Your task to perform on an android device: turn off location history Image 0: 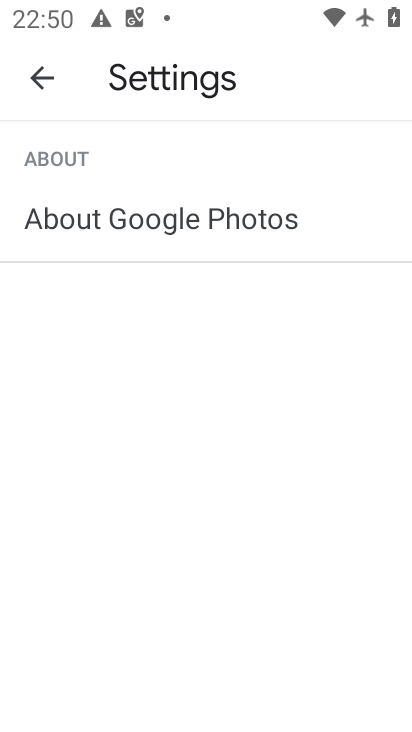
Step 0: press home button
Your task to perform on an android device: turn off location history Image 1: 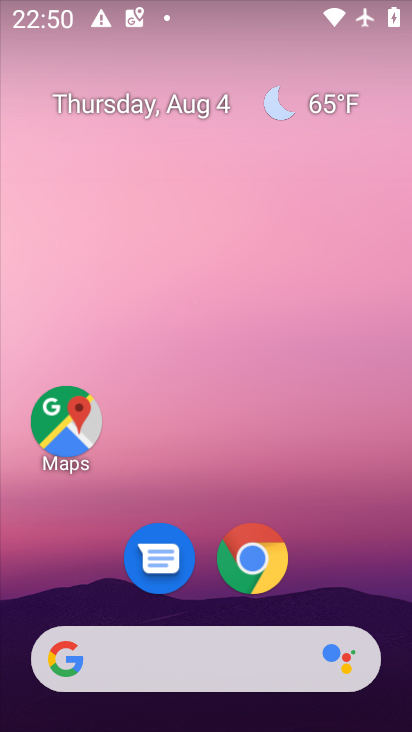
Step 1: drag from (341, 556) to (282, 123)
Your task to perform on an android device: turn off location history Image 2: 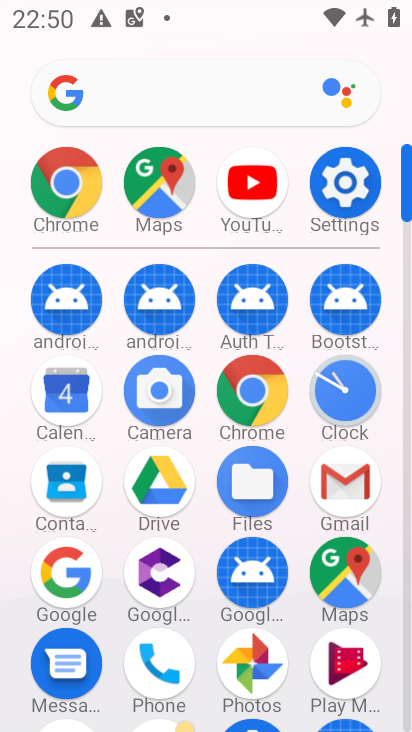
Step 2: drag from (301, 537) to (323, 238)
Your task to perform on an android device: turn off location history Image 3: 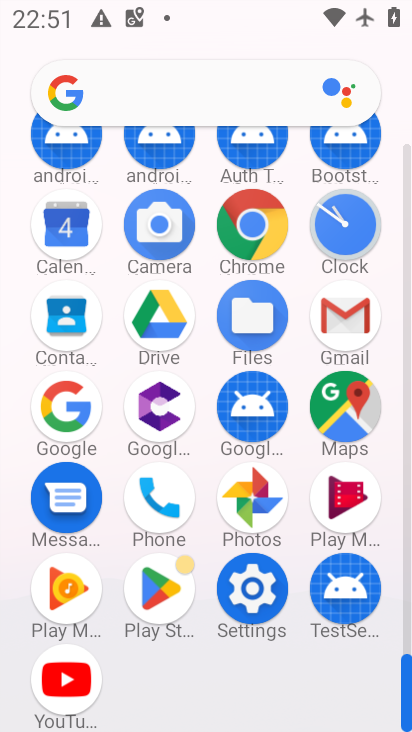
Step 3: click (253, 605)
Your task to perform on an android device: turn off location history Image 4: 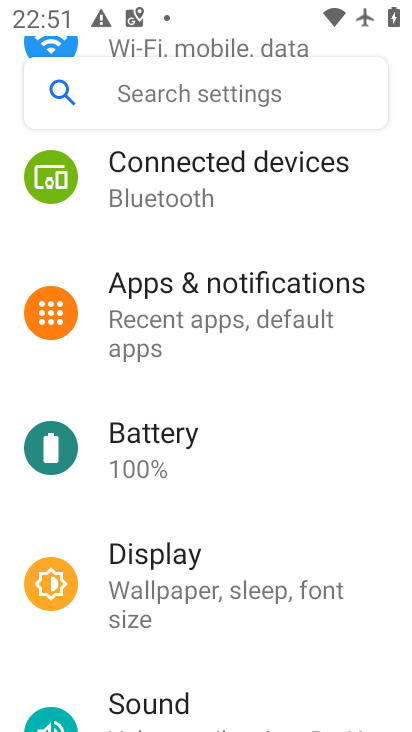
Step 4: drag from (263, 642) to (308, 226)
Your task to perform on an android device: turn off location history Image 5: 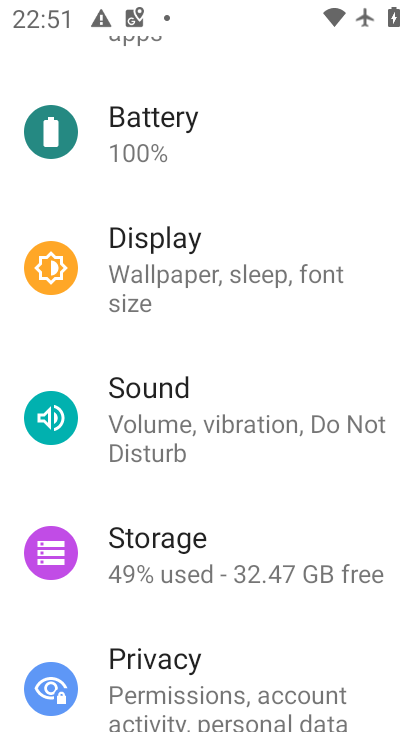
Step 5: drag from (262, 633) to (339, 301)
Your task to perform on an android device: turn off location history Image 6: 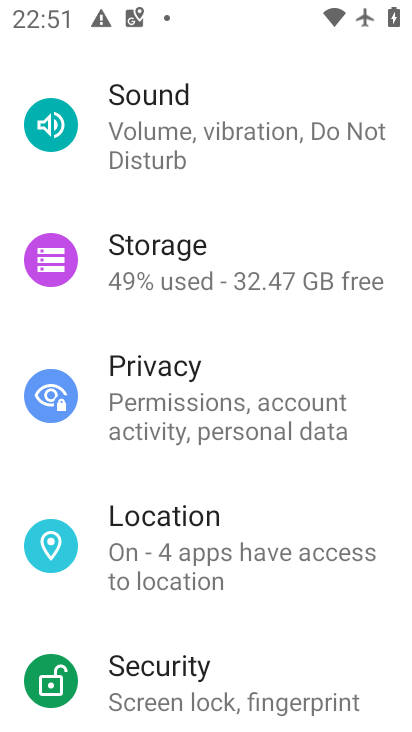
Step 6: click (208, 540)
Your task to perform on an android device: turn off location history Image 7: 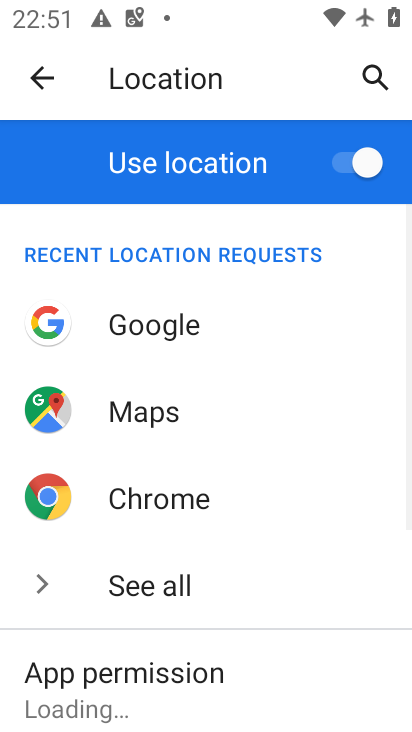
Step 7: drag from (302, 665) to (365, 325)
Your task to perform on an android device: turn off location history Image 8: 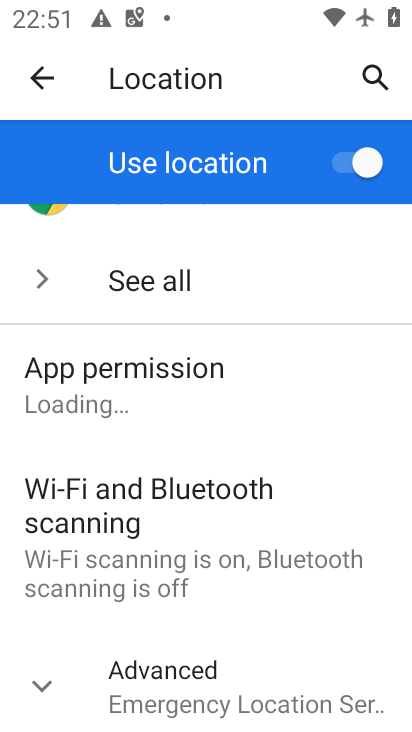
Step 8: drag from (203, 655) to (285, 393)
Your task to perform on an android device: turn off location history Image 9: 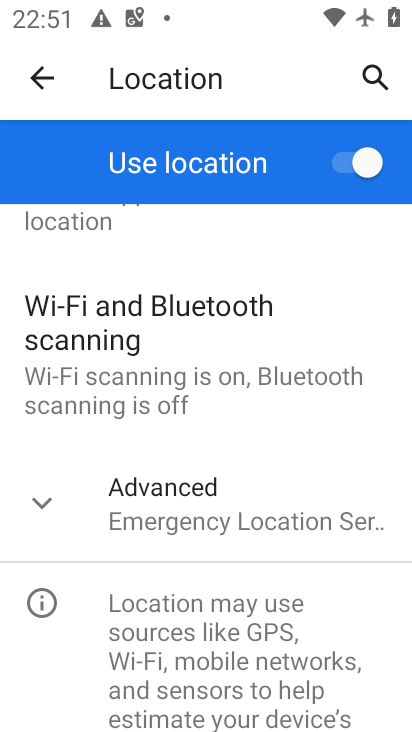
Step 9: click (242, 498)
Your task to perform on an android device: turn off location history Image 10: 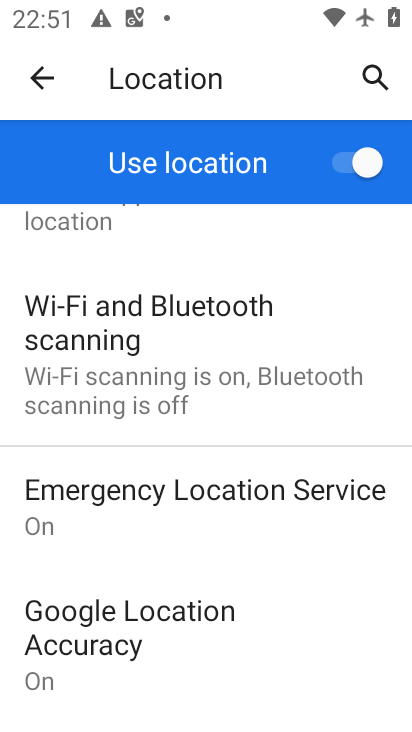
Step 10: drag from (288, 647) to (300, 348)
Your task to perform on an android device: turn off location history Image 11: 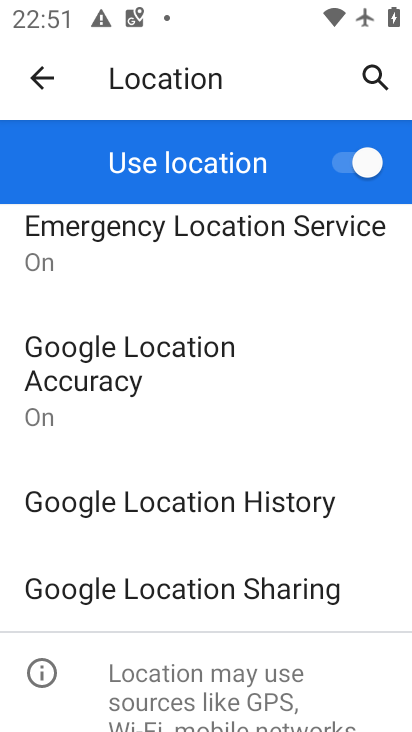
Step 11: click (212, 518)
Your task to perform on an android device: turn off location history Image 12: 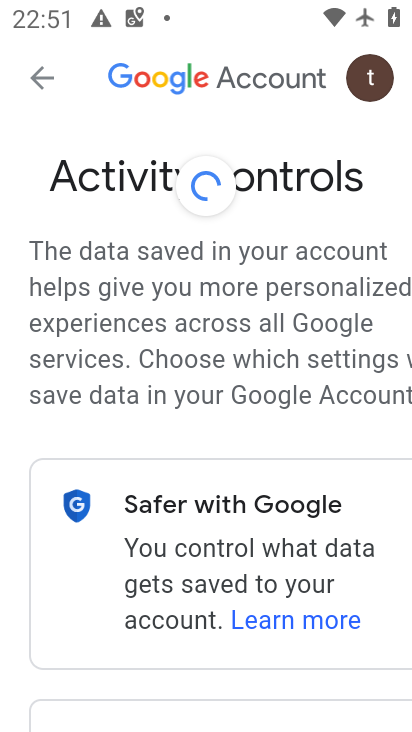
Step 12: task complete